Your task to perform on an android device: visit the assistant section in the google photos Image 0: 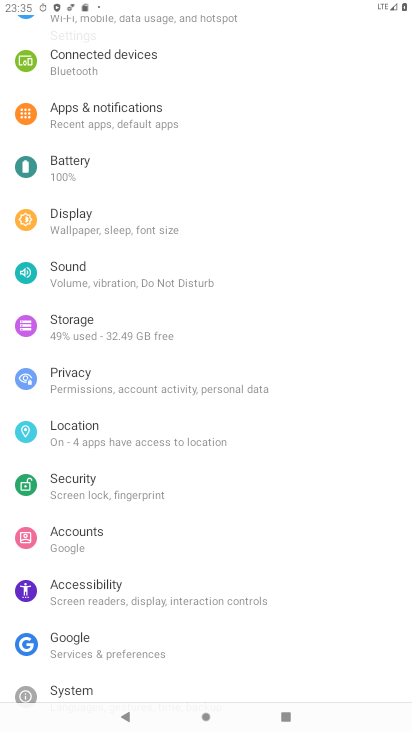
Step 0: drag from (283, 581) to (320, 389)
Your task to perform on an android device: visit the assistant section in the google photos Image 1: 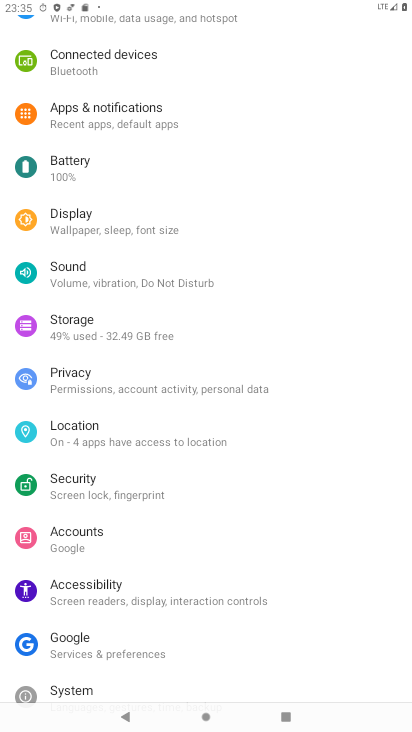
Step 1: press back button
Your task to perform on an android device: visit the assistant section in the google photos Image 2: 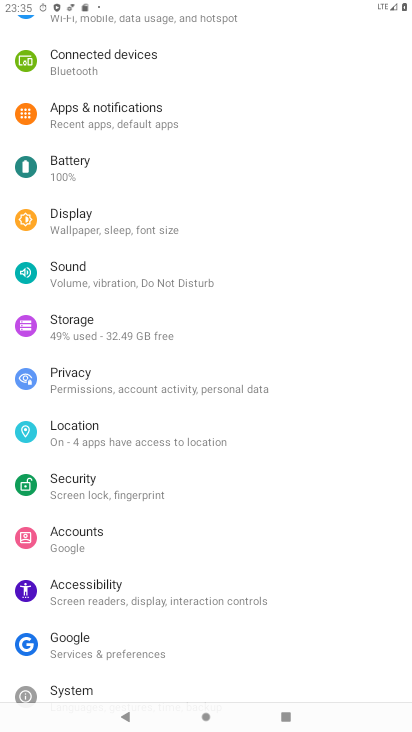
Step 2: press back button
Your task to perform on an android device: visit the assistant section in the google photos Image 3: 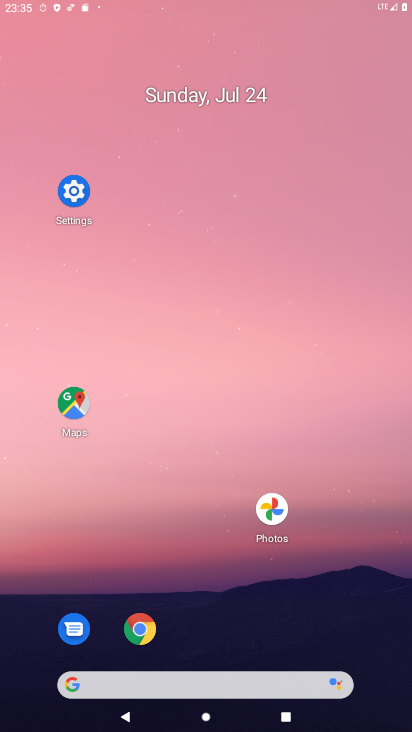
Step 3: press back button
Your task to perform on an android device: visit the assistant section in the google photos Image 4: 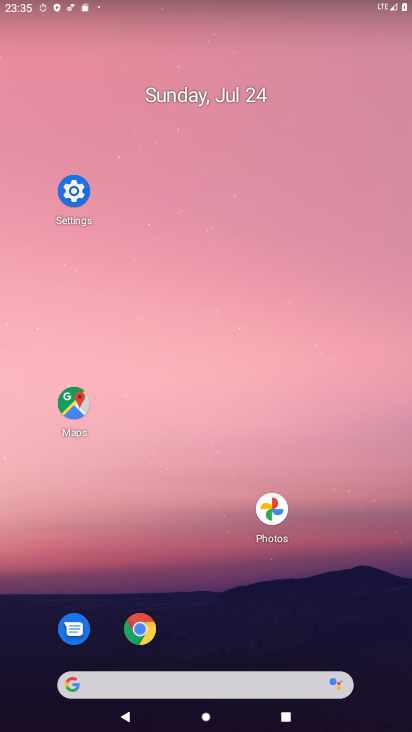
Step 4: drag from (224, 644) to (232, 33)
Your task to perform on an android device: visit the assistant section in the google photos Image 5: 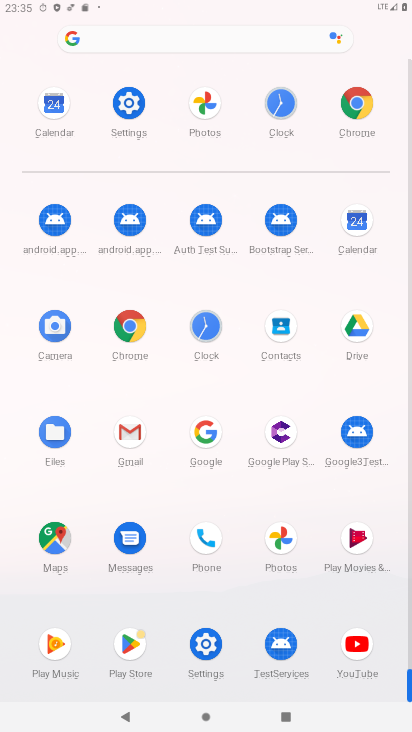
Step 5: drag from (299, 626) to (240, 67)
Your task to perform on an android device: visit the assistant section in the google photos Image 6: 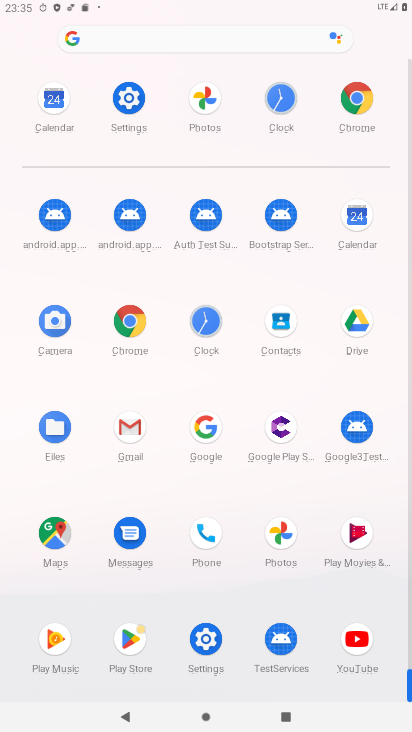
Step 6: click (284, 537)
Your task to perform on an android device: visit the assistant section in the google photos Image 7: 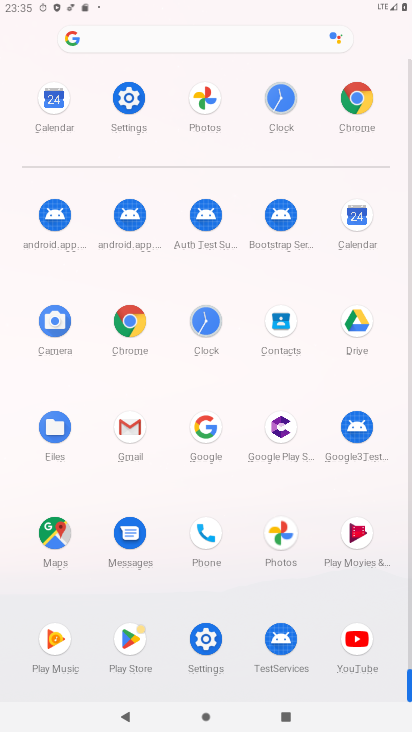
Step 7: click (284, 537)
Your task to perform on an android device: visit the assistant section in the google photos Image 8: 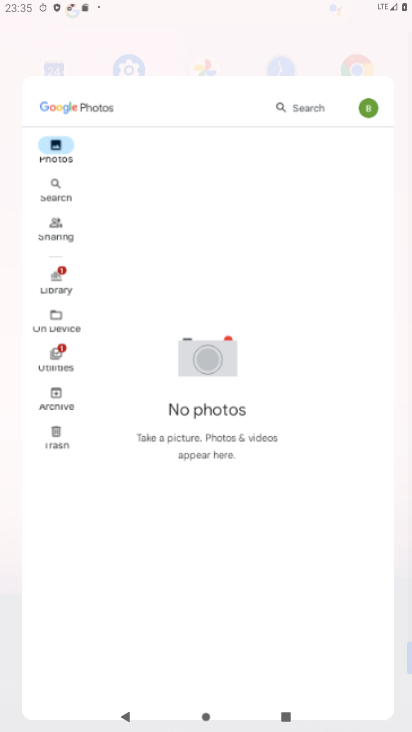
Step 8: click (284, 537)
Your task to perform on an android device: visit the assistant section in the google photos Image 9: 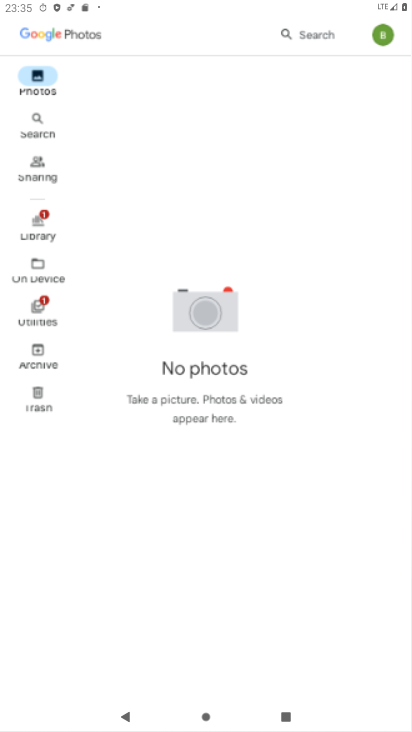
Step 9: click (284, 537)
Your task to perform on an android device: visit the assistant section in the google photos Image 10: 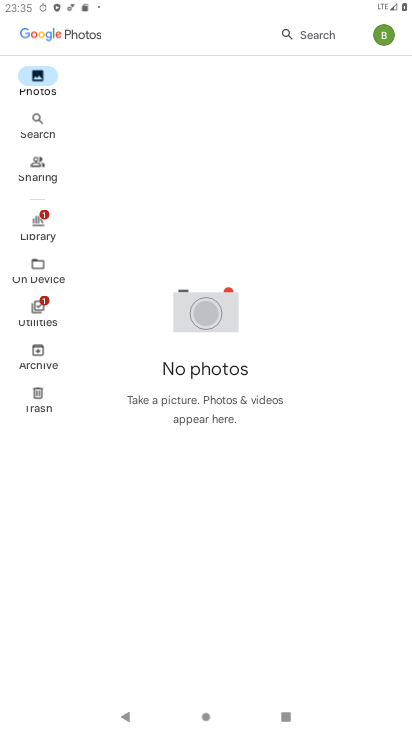
Step 10: click (49, 41)
Your task to perform on an android device: visit the assistant section in the google photos Image 11: 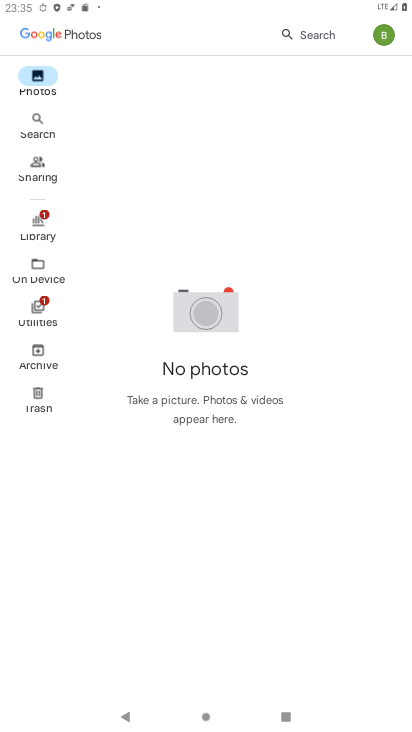
Step 11: click (195, 379)
Your task to perform on an android device: visit the assistant section in the google photos Image 12: 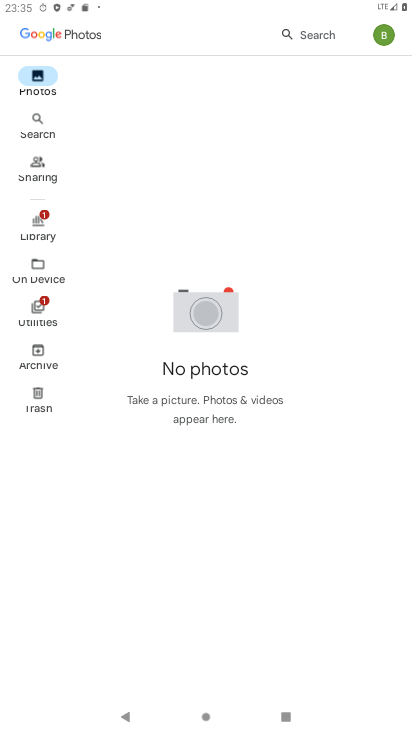
Step 12: click (196, 367)
Your task to perform on an android device: visit the assistant section in the google photos Image 13: 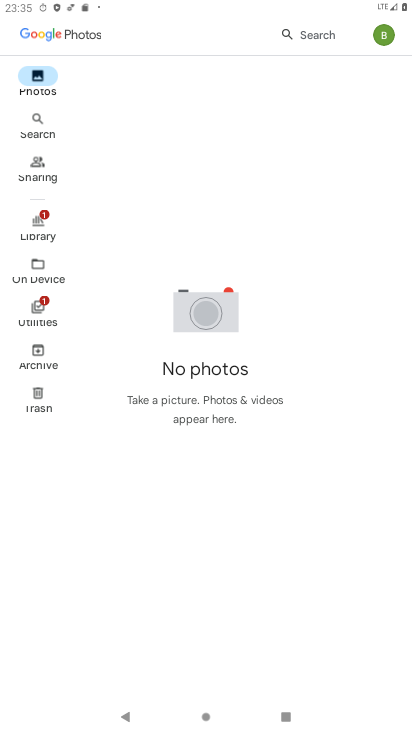
Step 13: click (196, 367)
Your task to perform on an android device: visit the assistant section in the google photos Image 14: 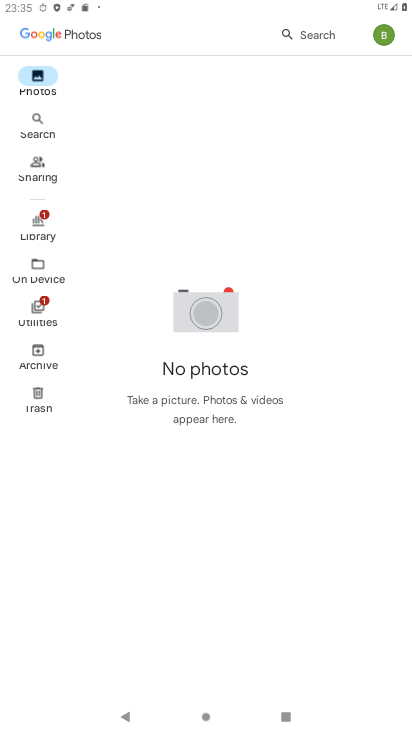
Step 14: click (199, 366)
Your task to perform on an android device: visit the assistant section in the google photos Image 15: 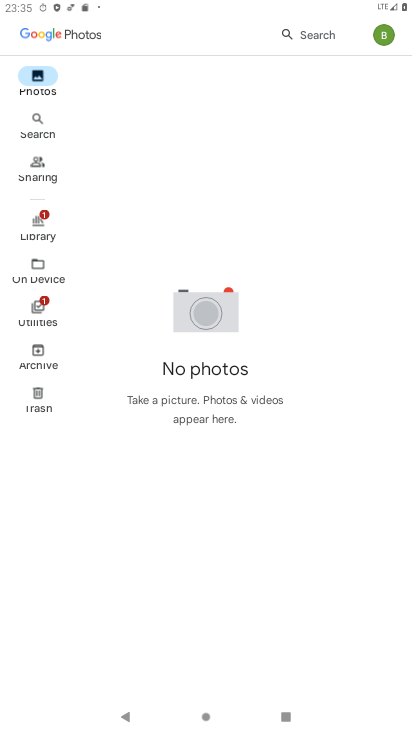
Step 15: click (201, 355)
Your task to perform on an android device: visit the assistant section in the google photos Image 16: 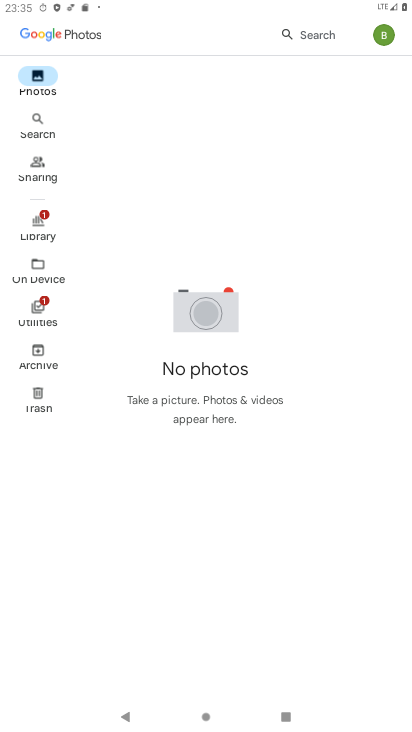
Step 16: click (201, 355)
Your task to perform on an android device: visit the assistant section in the google photos Image 17: 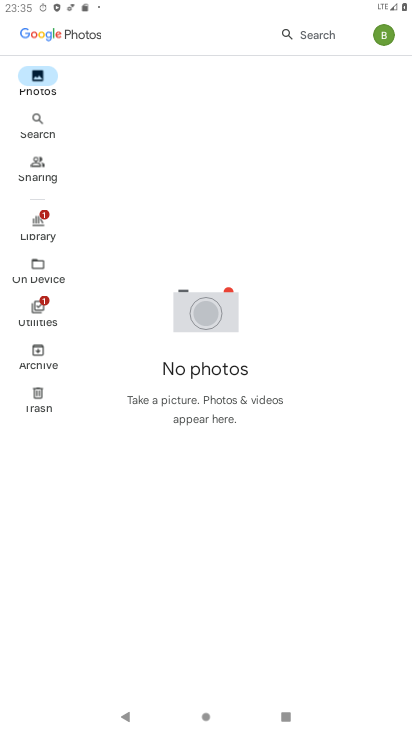
Step 17: click (202, 308)
Your task to perform on an android device: visit the assistant section in the google photos Image 18: 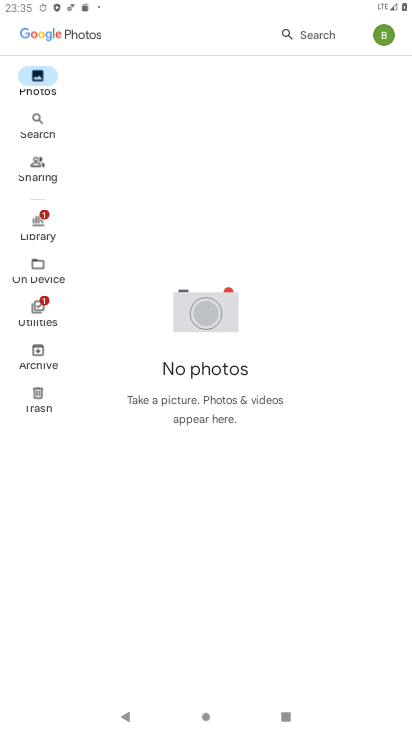
Step 18: click (207, 301)
Your task to perform on an android device: visit the assistant section in the google photos Image 19: 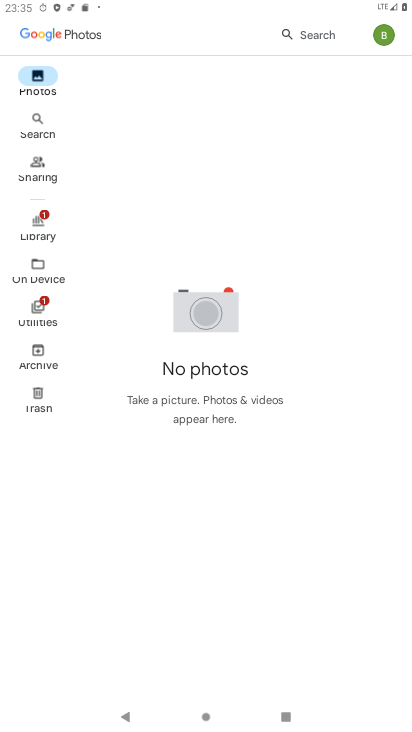
Step 19: click (284, 30)
Your task to perform on an android device: visit the assistant section in the google photos Image 20: 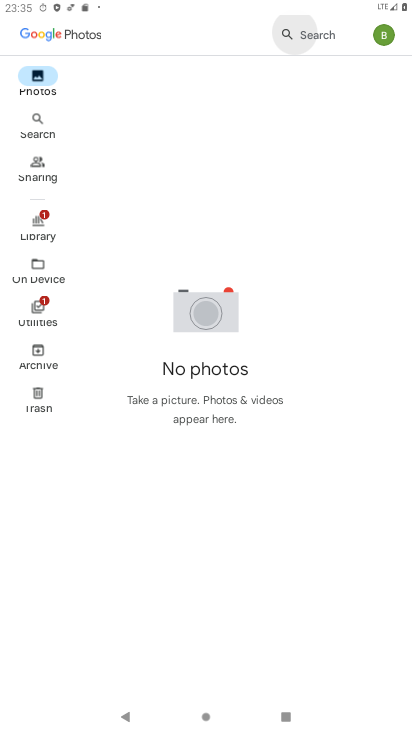
Step 20: click (382, 40)
Your task to perform on an android device: visit the assistant section in the google photos Image 21: 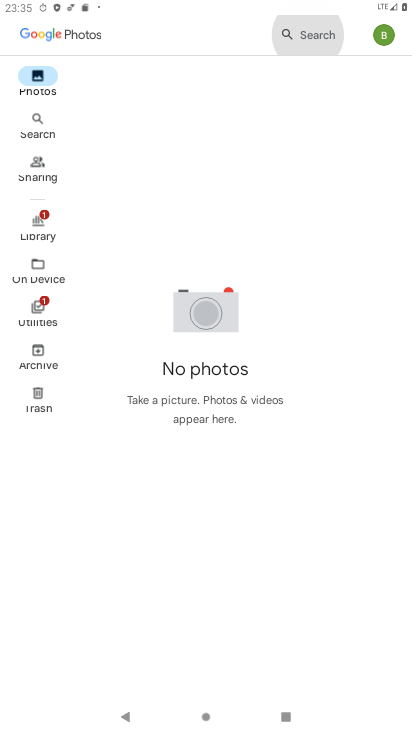
Step 21: click (383, 41)
Your task to perform on an android device: visit the assistant section in the google photos Image 22: 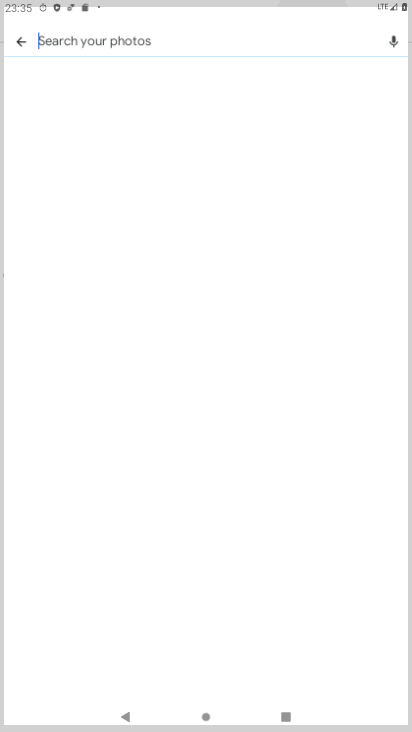
Step 22: drag from (389, 35) to (365, 255)
Your task to perform on an android device: visit the assistant section in the google photos Image 23: 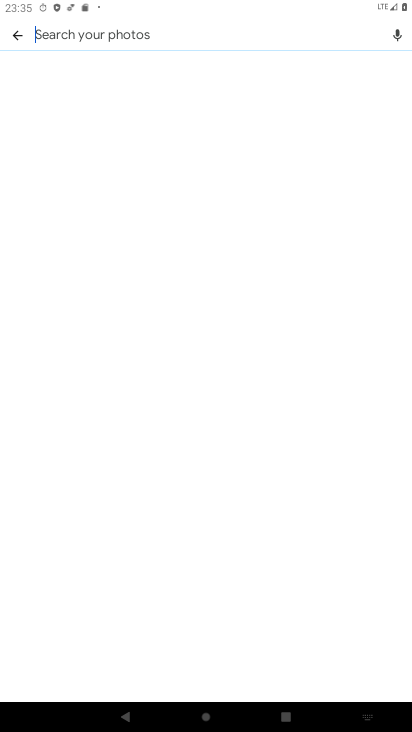
Step 23: click (5, 23)
Your task to perform on an android device: visit the assistant section in the google photos Image 24: 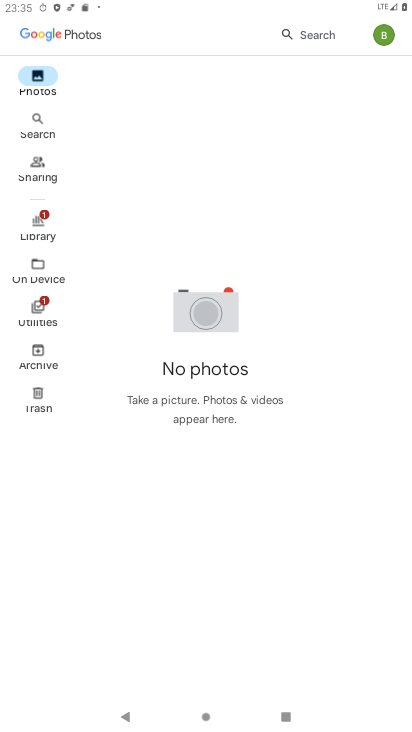
Step 24: click (34, 279)
Your task to perform on an android device: visit the assistant section in the google photos Image 25: 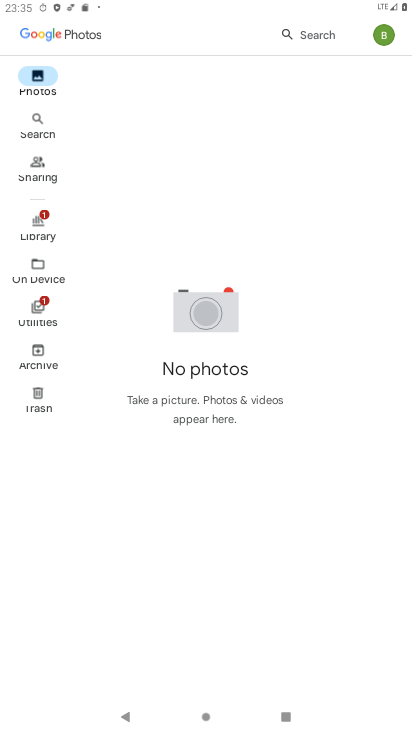
Step 25: click (37, 279)
Your task to perform on an android device: visit the assistant section in the google photos Image 26: 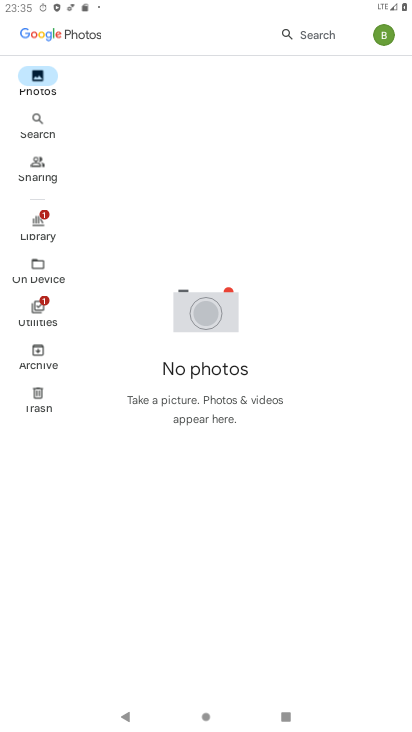
Step 26: click (37, 281)
Your task to perform on an android device: visit the assistant section in the google photos Image 27: 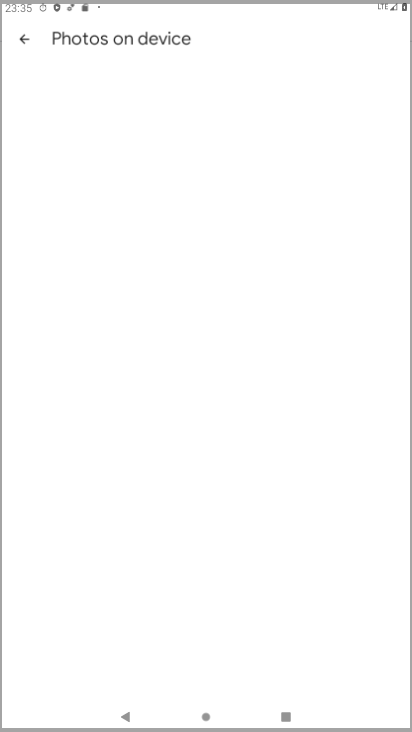
Step 27: click (40, 282)
Your task to perform on an android device: visit the assistant section in the google photos Image 28: 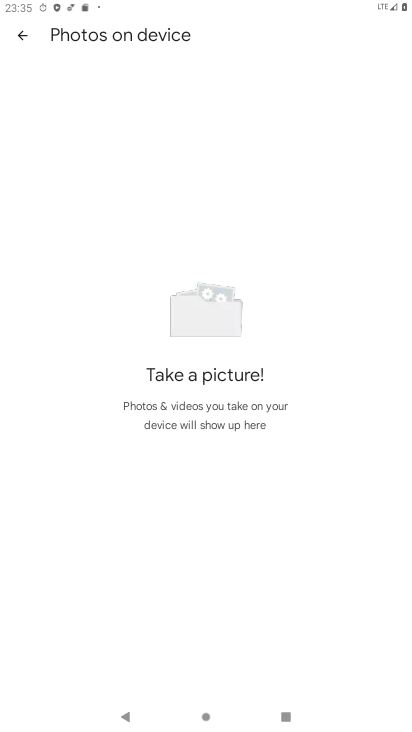
Step 28: click (43, 282)
Your task to perform on an android device: visit the assistant section in the google photos Image 29: 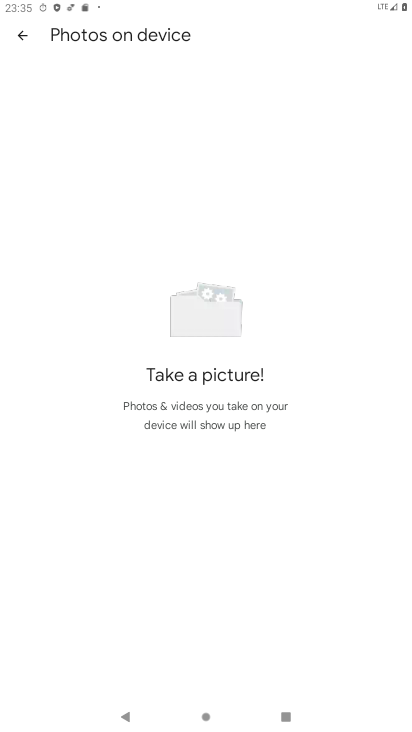
Step 29: click (46, 281)
Your task to perform on an android device: visit the assistant section in the google photos Image 30: 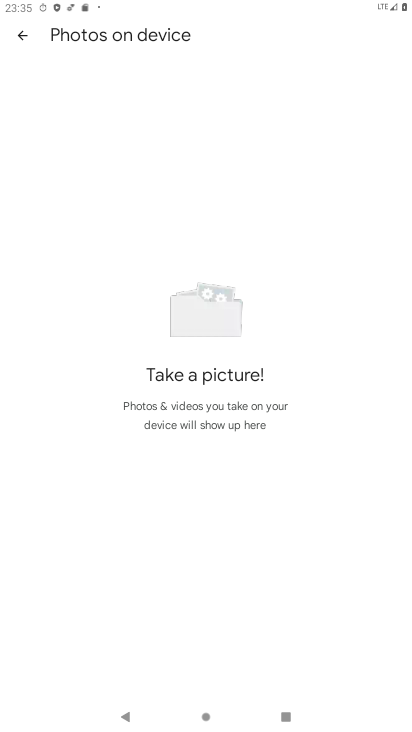
Step 30: click (221, 335)
Your task to perform on an android device: visit the assistant section in the google photos Image 31: 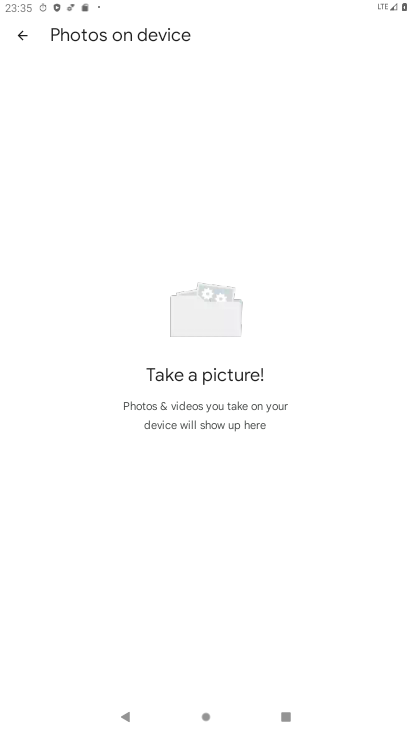
Step 31: click (219, 335)
Your task to perform on an android device: visit the assistant section in the google photos Image 32: 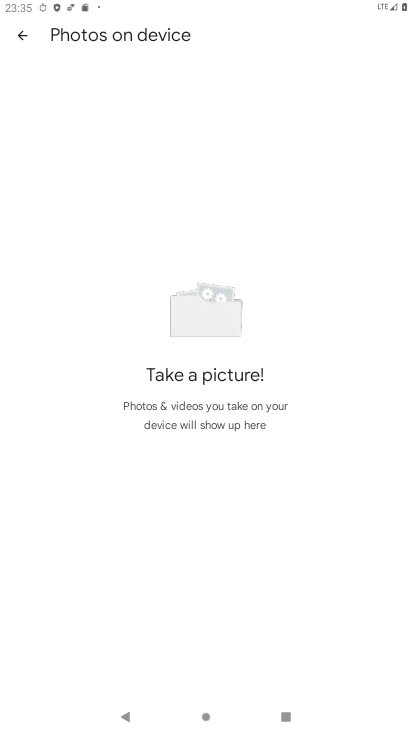
Step 32: click (212, 336)
Your task to perform on an android device: visit the assistant section in the google photos Image 33: 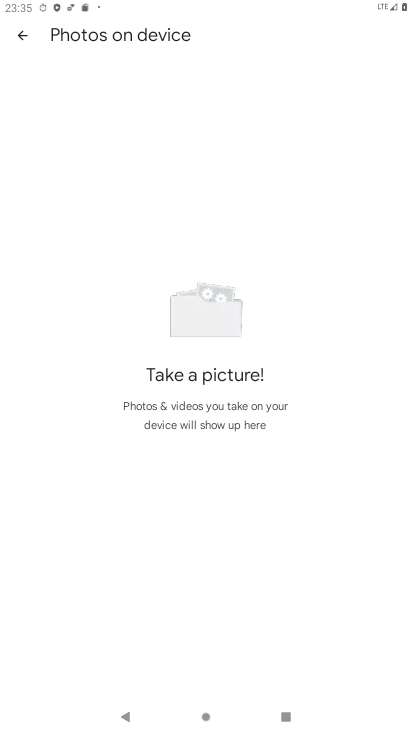
Step 33: click (210, 337)
Your task to perform on an android device: visit the assistant section in the google photos Image 34: 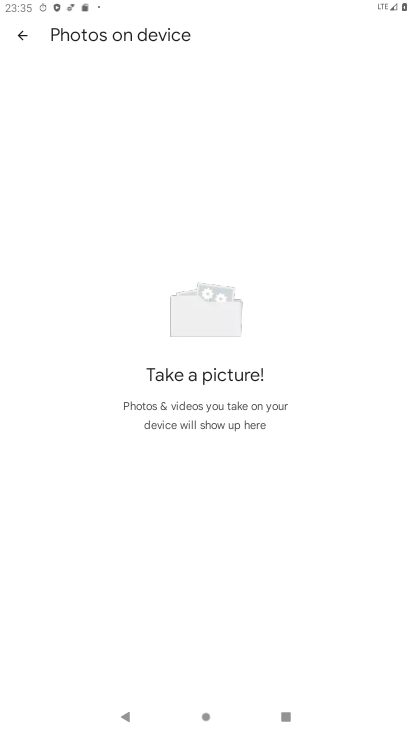
Step 34: click (210, 337)
Your task to perform on an android device: visit the assistant section in the google photos Image 35: 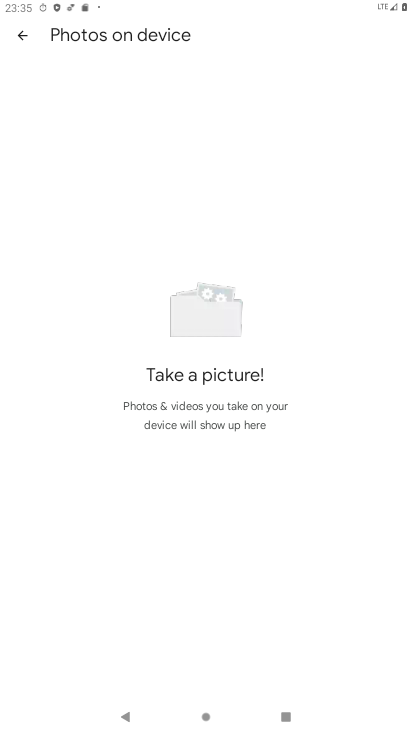
Step 35: click (207, 337)
Your task to perform on an android device: visit the assistant section in the google photos Image 36: 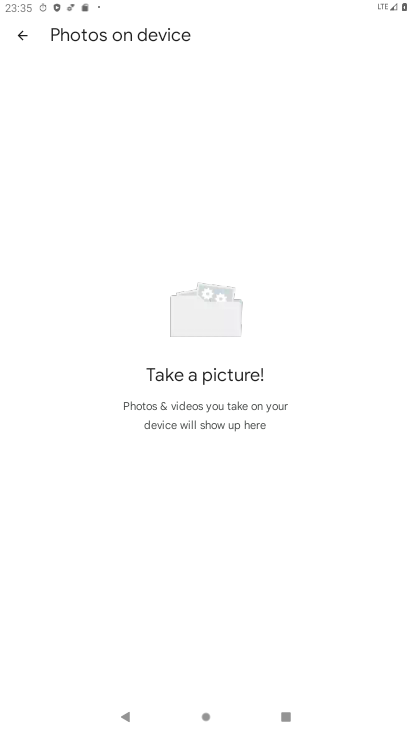
Step 36: click (206, 337)
Your task to perform on an android device: visit the assistant section in the google photos Image 37: 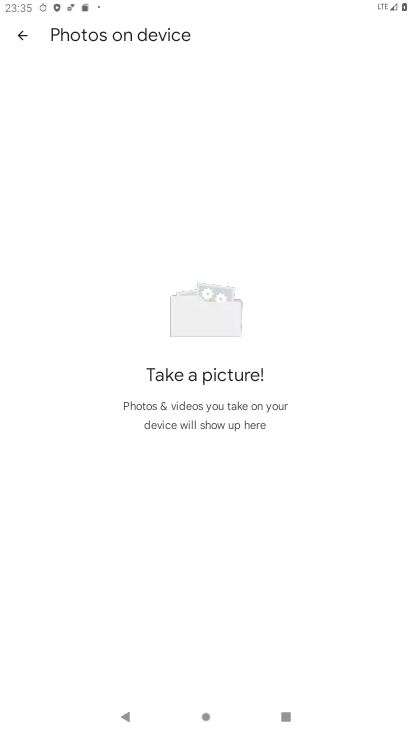
Step 37: task complete